Your task to perform on an android device: Go to Reddit.com Image 0: 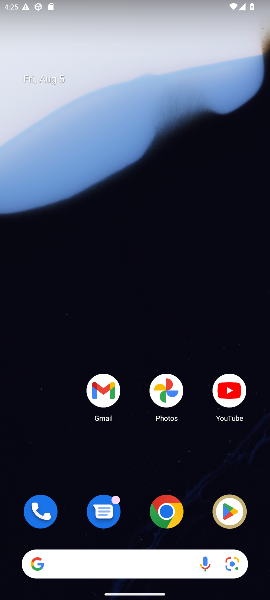
Step 0: click (175, 506)
Your task to perform on an android device: Go to Reddit.com Image 1: 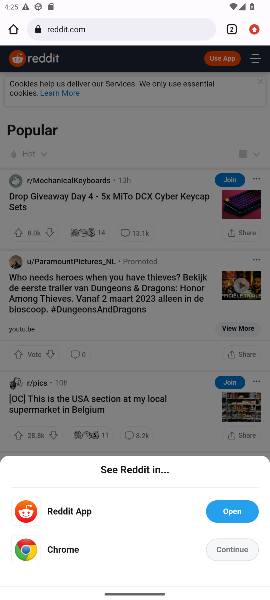
Step 1: click (219, 511)
Your task to perform on an android device: Go to Reddit.com Image 2: 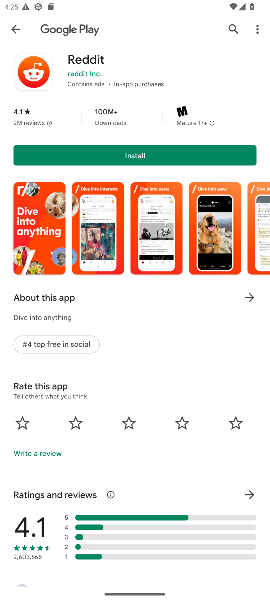
Step 2: click (110, 148)
Your task to perform on an android device: Go to Reddit.com Image 3: 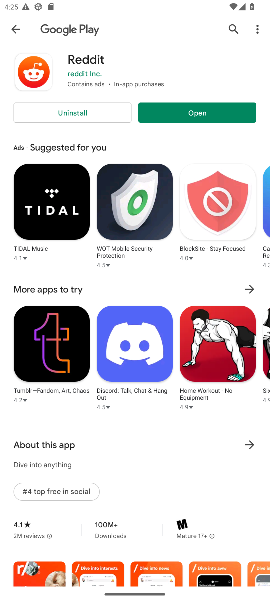
Step 3: click (170, 110)
Your task to perform on an android device: Go to Reddit.com Image 4: 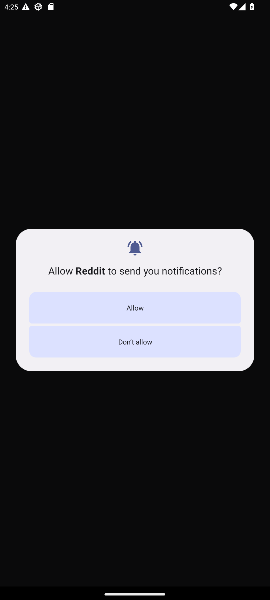
Step 4: click (123, 306)
Your task to perform on an android device: Go to Reddit.com Image 5: 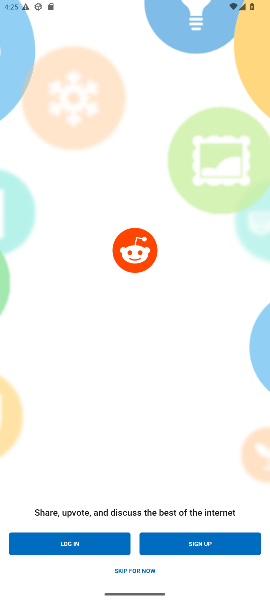
Step 5: task complete